Your task to perform on an android device: Open Youtube and go to the subscriptions tab Image 0: 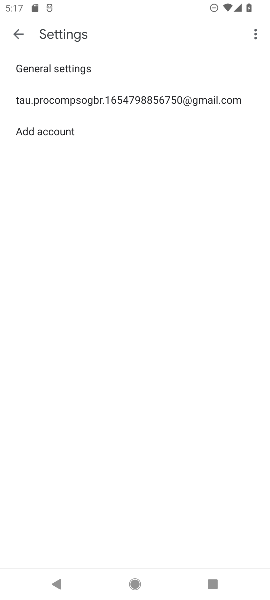
Step 0: press home button
Your task to perform on an android device: Open Youtube and go to the subscriptions tab Image 1: 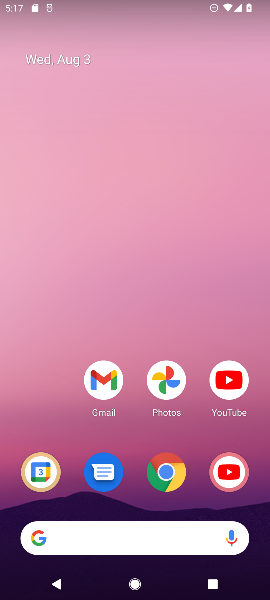
Step 1: drag from (198, 489) to (71, 1)
Your task to perform on an android device: Open Youtube and go to the subscriptions tab Image 2: 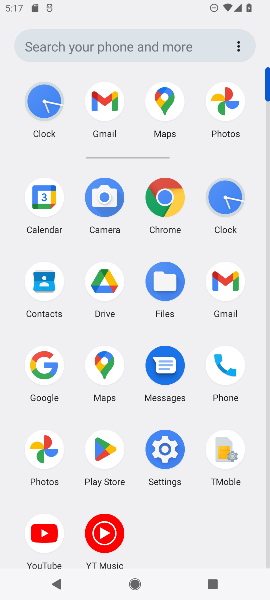
Step 2: click (50, 533)
Your task to perform on an android device: Open Youtube and go to the subscriptions tab Image 3: 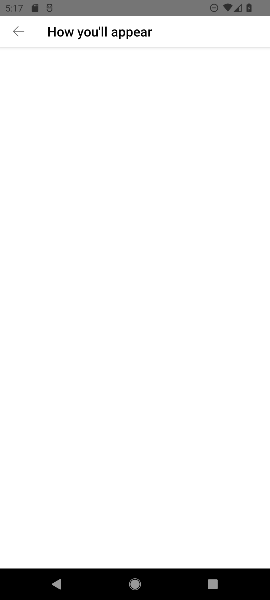
Step 3: press back button
Your task to perform on an android device: Open Youtube and go to the subscriptions tab Image 4: 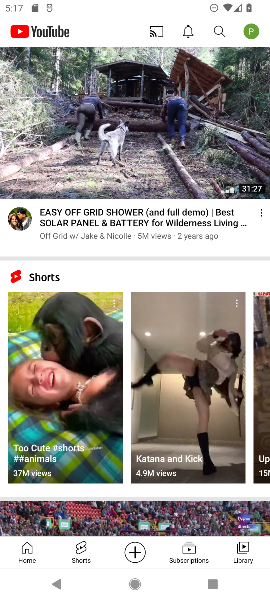
Step 4: click (176, 555)
Your task to perform on an android device: Open Youtube and go to the subscriptions tab Image 5: 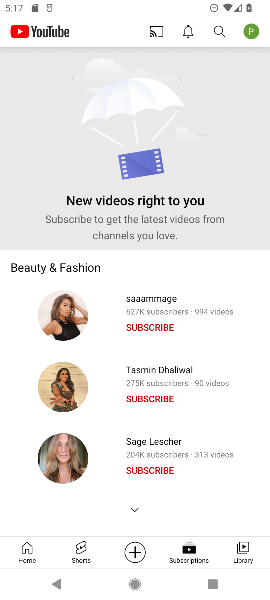
Step 5: task complete